Your task to perform on an android device: turn off wifi Image 0: 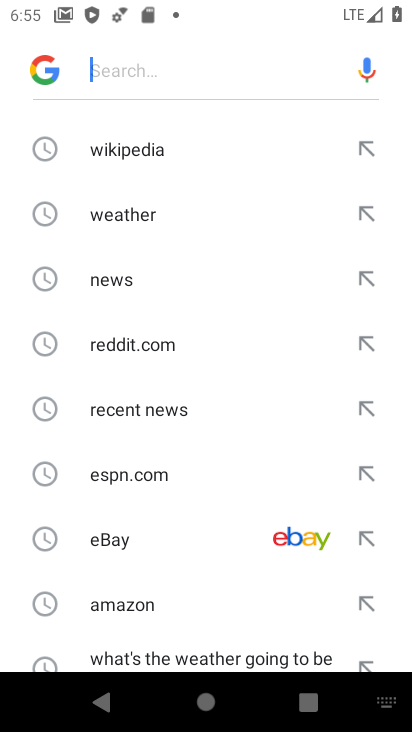
Step 0: press home button
Your task to perform on an android device: turn off wifi Image 1: 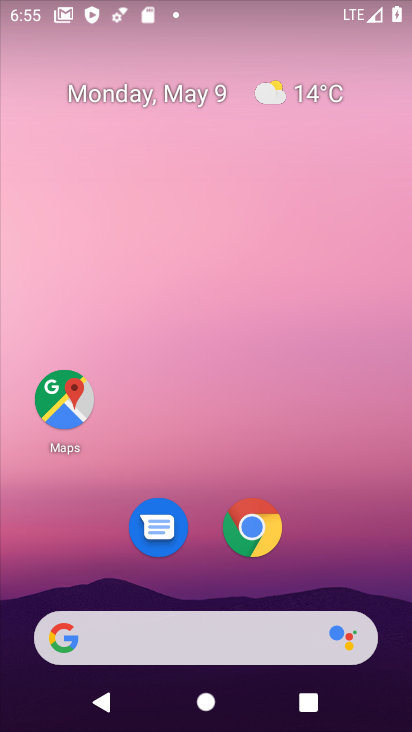
Step 1: drag from (332, 580) to (256, 103)
Your task to perform on an android device: turn off wifi Image 2: 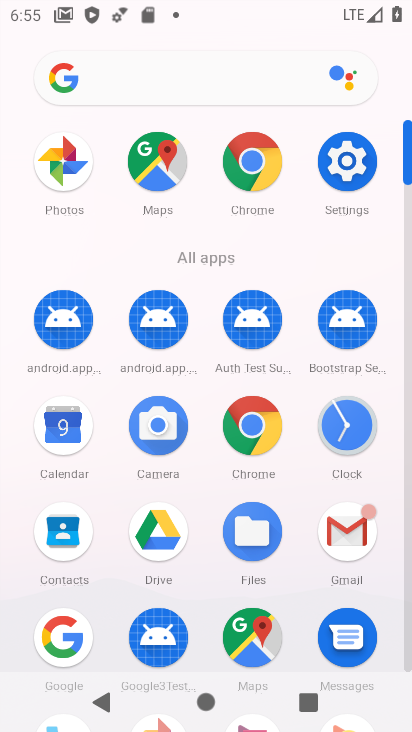
Step 2: click (349, 161)
Your task to perform on an android device: turn off wifi Image 3: 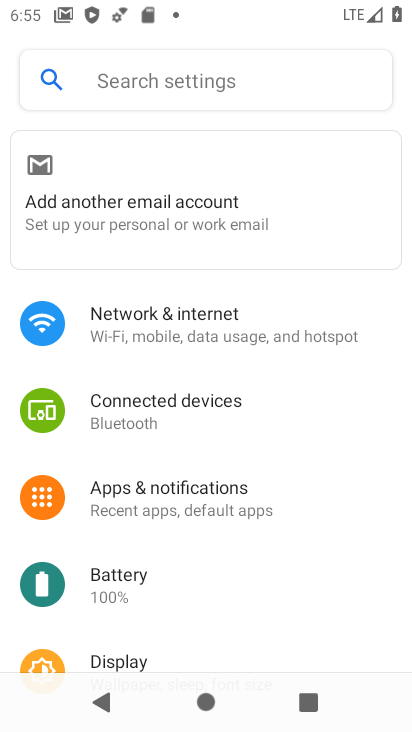
Step 3: click (181, 310)
Your task to perform on an android device: turn off wifi Image 4: 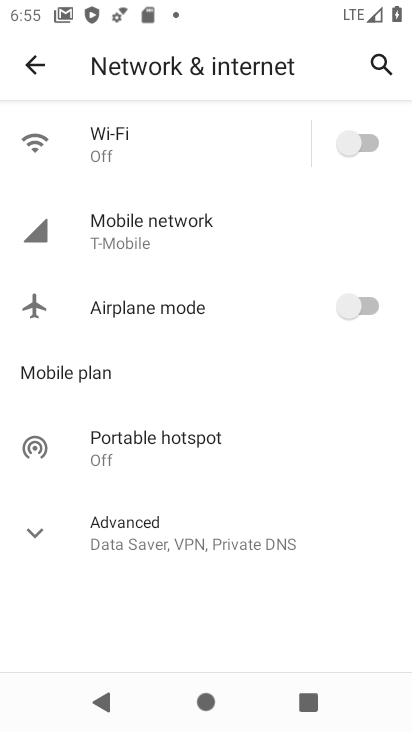
Step 4: task complete